Your task to perform on an android device: turn off smart reply in the gmail app Image 0: 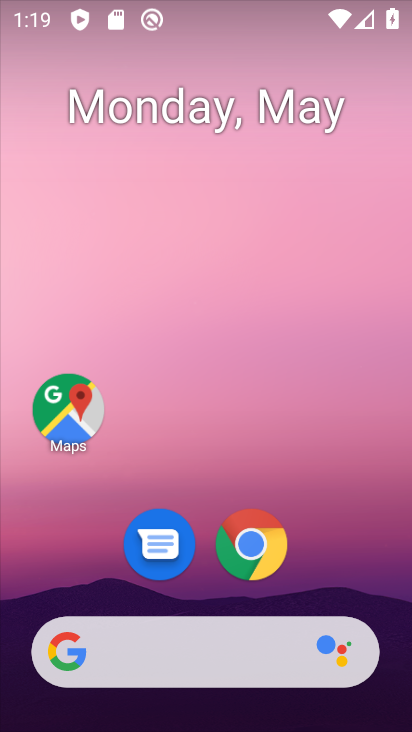
Step 0: drag from (382, 597) to (380, 366)
Your task to perform on an android device: turn off smart reply in the gmail app Image 1: 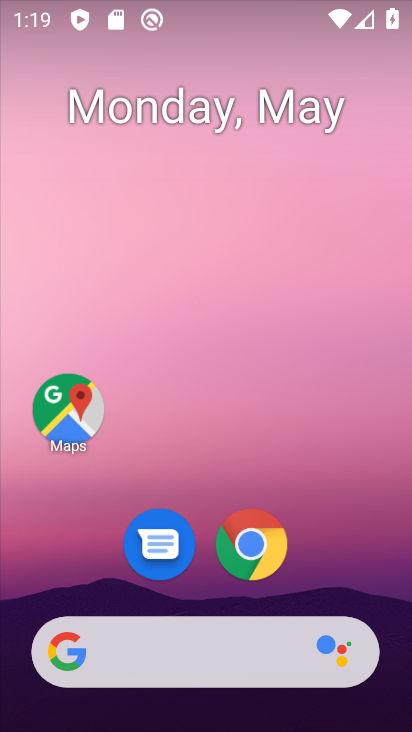
Step 1: drag from (378, 502) to (374, 190)
Your task to perform on an android device: turn off smart reply in the gmail app Image 2: 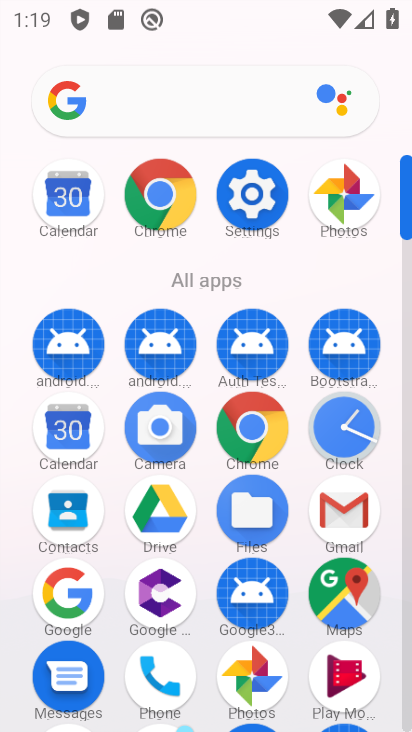
Step 2: click (361, 521)
Your task to perform on an android device: turn off smart reply in the gmail app Image 3: 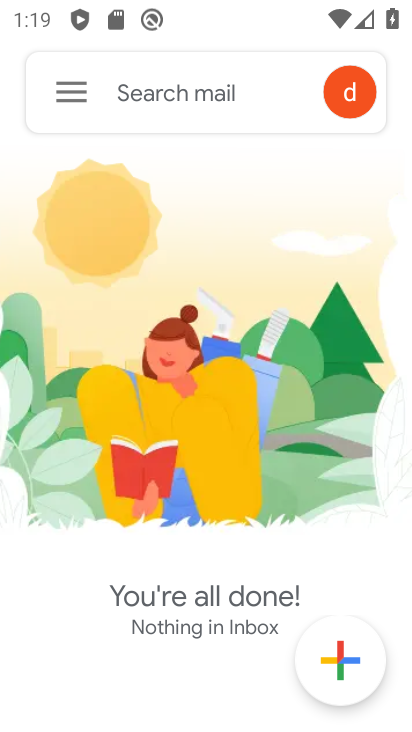
Step 3: click (74, 100)
Your task to perform on an android device: turn off smart reply in the gmail app Image 4: 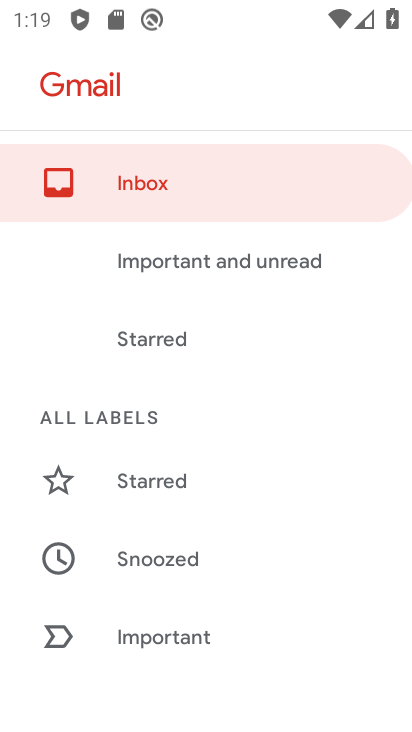
Step 4: drag from (287, 427) to (308, 277)
Your task to perform on an android device: turn off smart reply in the gmail app Image 5: 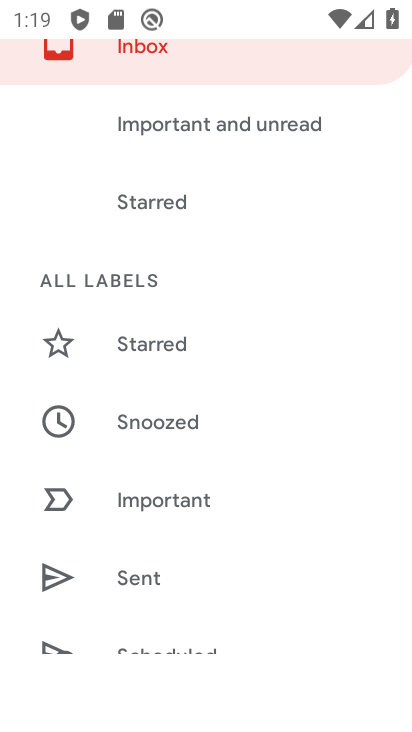
Step 5: drag from (339, 473) to (331, 300)
Your task to perform on an android device: turn off smart reply in the gmail app Image 6: 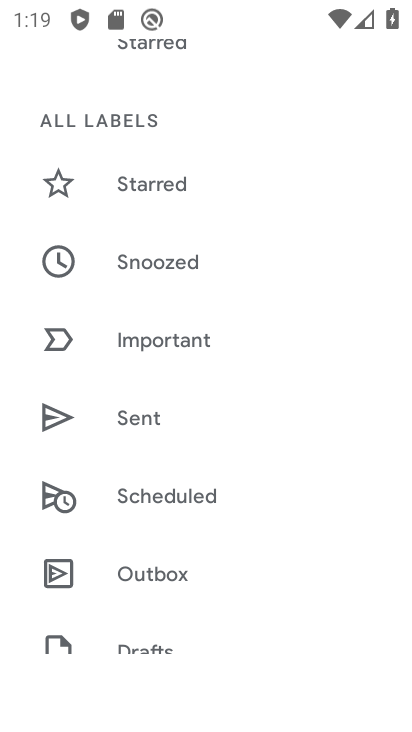
Step 6: drag from (322, 516) to (333, 366)
Your task to perform on an android device: turn off smart reply in the gmail app Image 7: 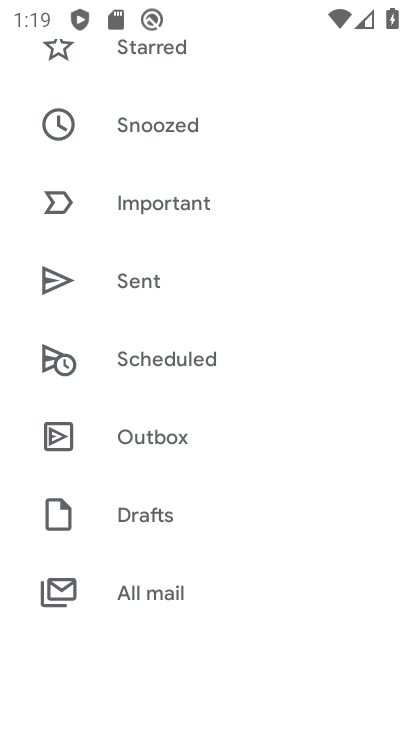
Step 7: drag from (303, 549) to (301, 339)
Your task to perform on an android device: turn off smart reply in the gmail app Image 8: 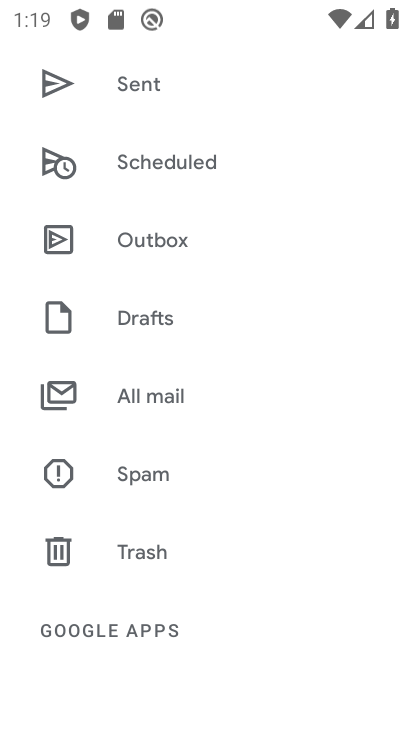
Step 8: drag from (298, 539) to (305, 285)
Your task to perform on an android device: turn off smart reply in the gmail app Image 9: 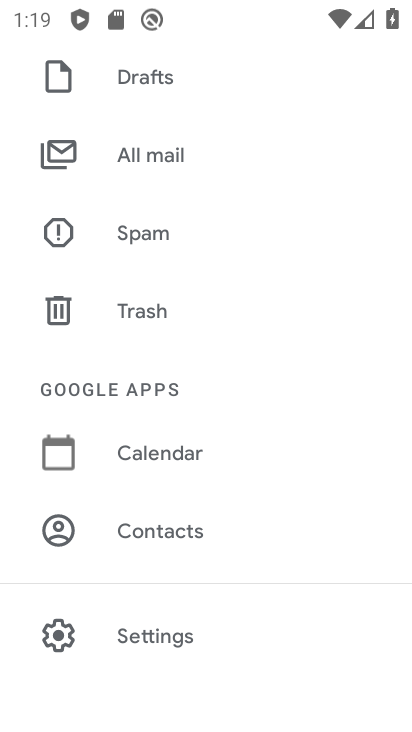
Step 9: drag from (299, 494) to (304, 310)
Your task to perform on an android device: turn off smart reply in the gmail app Image 10: 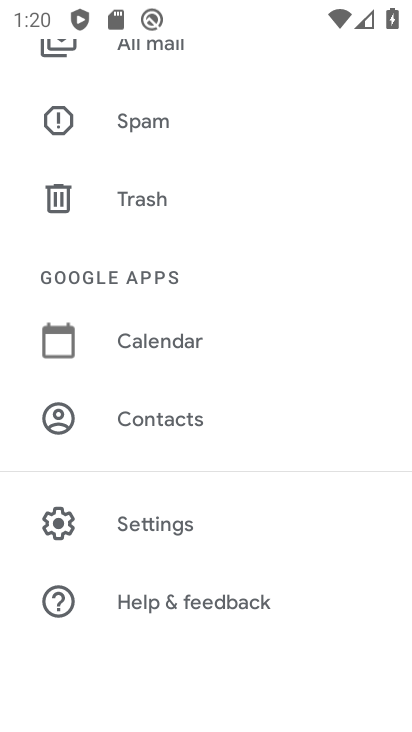
Step 10: click (226, 528)
Your task to perform on an android device: turn off smart reply in the gmail app Image 11: 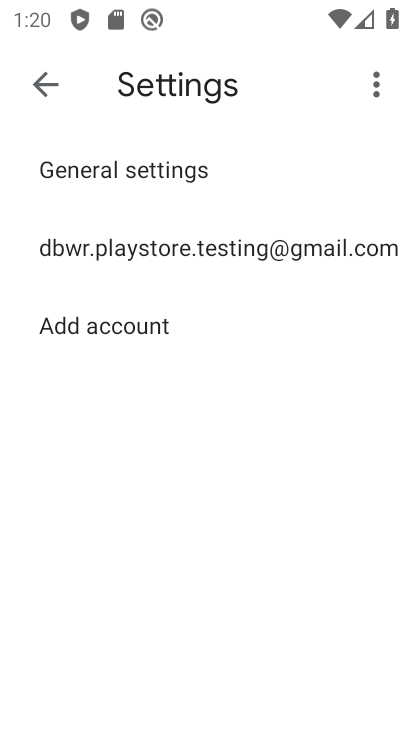
Step 11: click (257, 234)
Your task to perform on an android device: turn off smart reply in the gmail app Image 12: 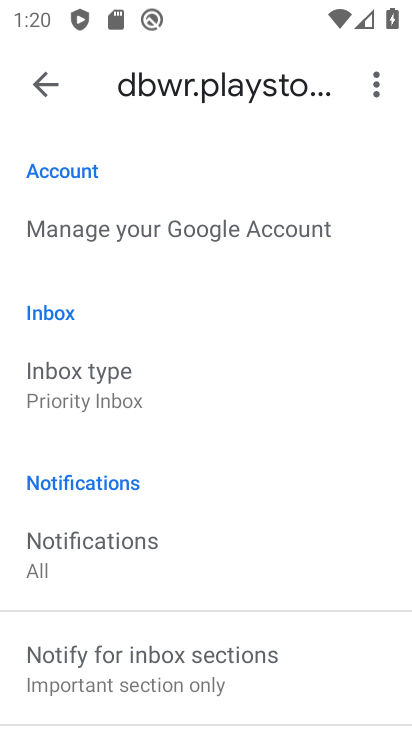
Step 12: drag from (314, 443) to (324, 328)
Your task to perform on an android device: turn off smart reply in the gmail app Image 13: 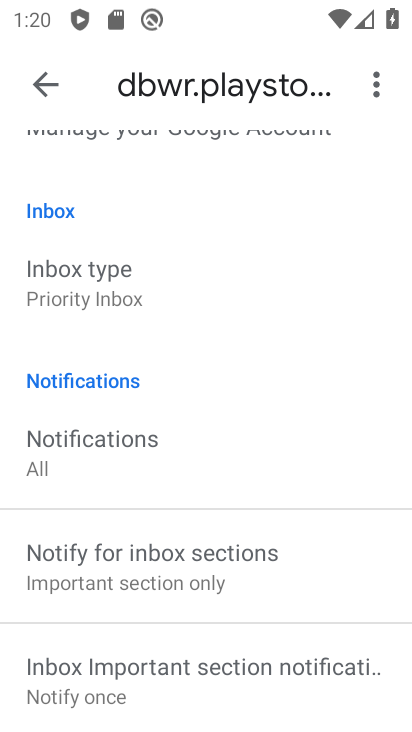
Step 13: drag from (321, 507) to (346, 371)
Your task to perform on an android device: turn off smart reply in the gmail app Image 14: 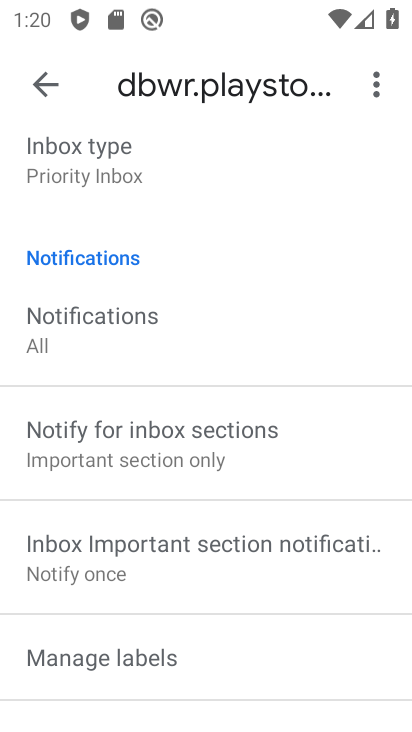
Step 14: drag from (339, 478) to (351, 383)
Your task to perform on an android device: turn off smart reply in the gmail app Image 15: 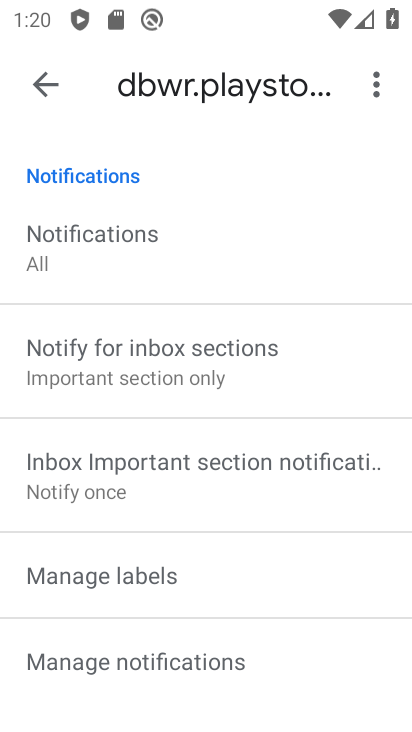
Step 15: drag from (342, 522) to (345, 427)
Your task to perform on an android device: turn off smart reply in the gmail app Image 16: 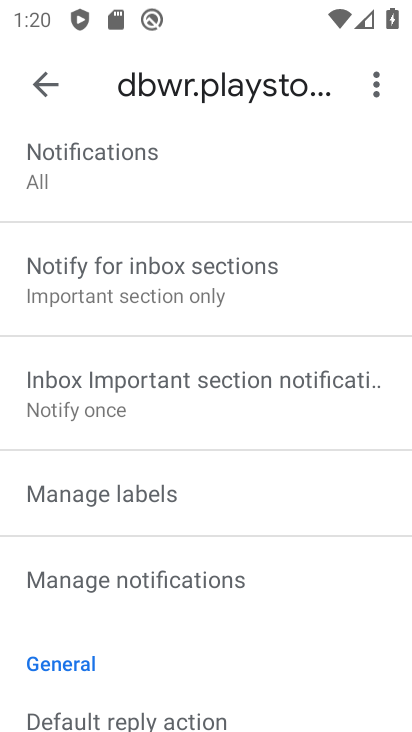
Step 16: drag from (321, 555) to (327, 461)
Your task to perform on an android device: turn off smart reply in the gmail app Image 17: 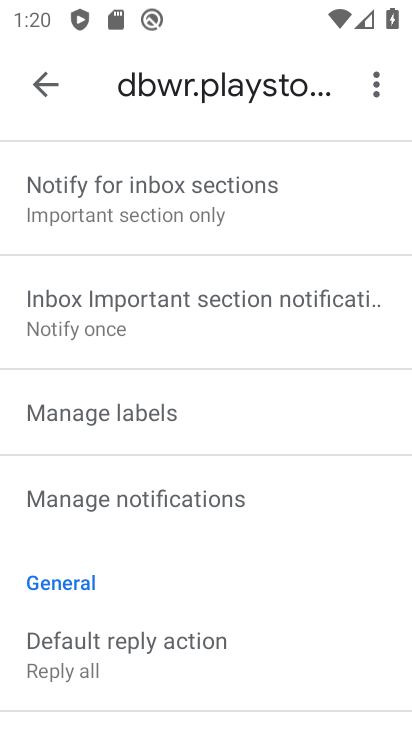
Step 17: drag from (332, 558) to (334, 444)
Your task to perform on an android device: turn off smart reply in the gmail app Image 18: 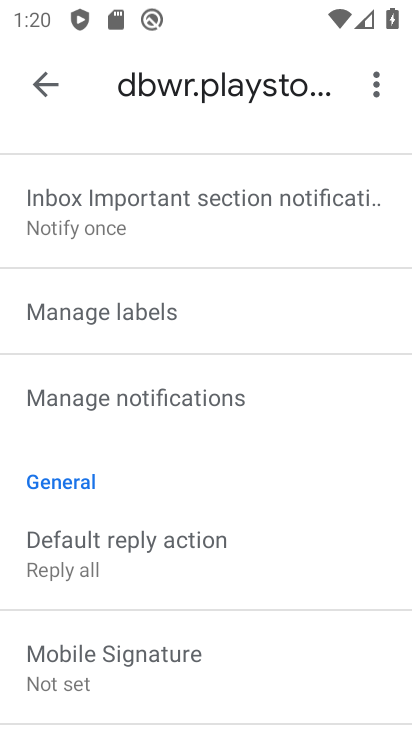
Step 18: drag from (331, 588) to (335, 484)
Your task to perform on an android device: turn off smart reply in the gmail app Image 19: 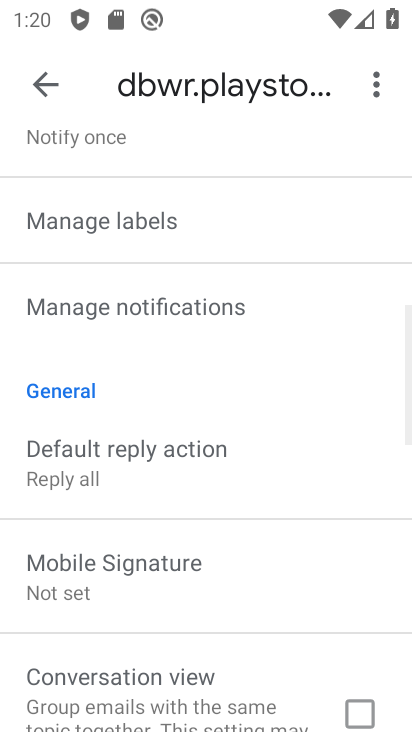
Step 19: drag from (328, 601) to (340, 425)
Your task to perform on an android device: turn off smart reply in the gmail app Image 20: 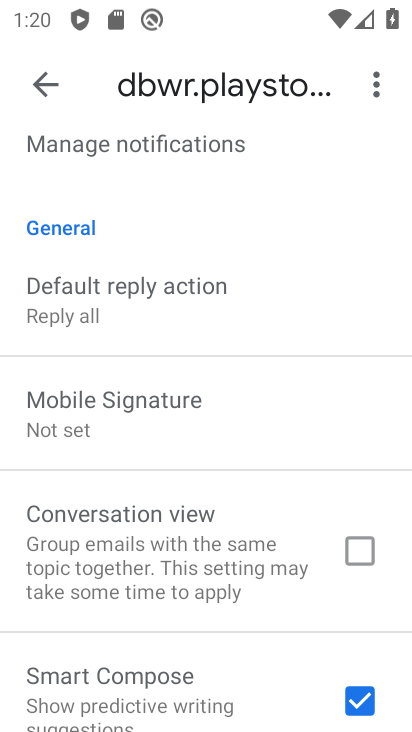
Step 20: drag from (299, 607) to (314, 527)
Your task to perform on an android device: turn off smart reply in the gmail app Image 21: 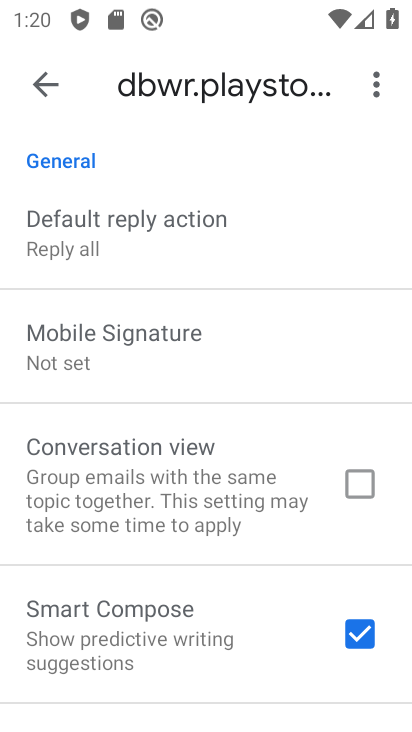
Step 21: drag from (273, 635) to (280, 478)
Your task to perform on an android device: turn off smart reply in the gmail app Image 22: 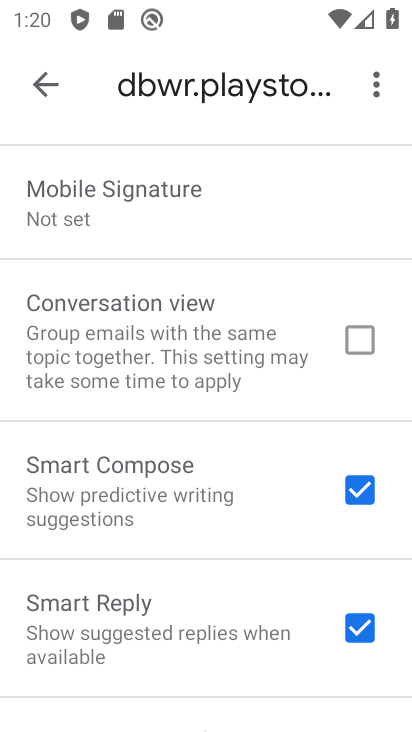
Step 22: drag from (248, 659) to (270, 540)
Your task to perform on an android device: turn off smart reply in the gmail app Image 23: 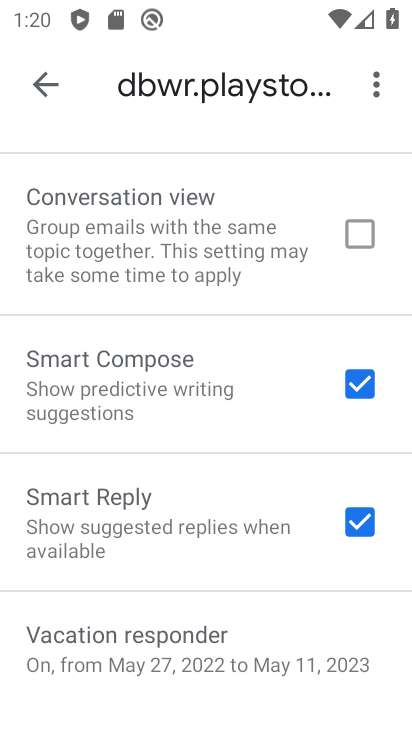
Step 23: click (359, 528)
Your task to perform on an android device: turn off smart reply in the gmail app Image 24: 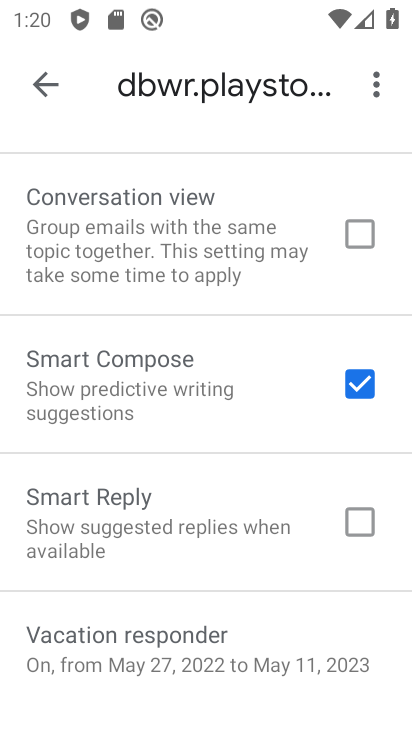
Step 24: task complete